Your task to perform on an android device: Go to Reddit.com Image 0: 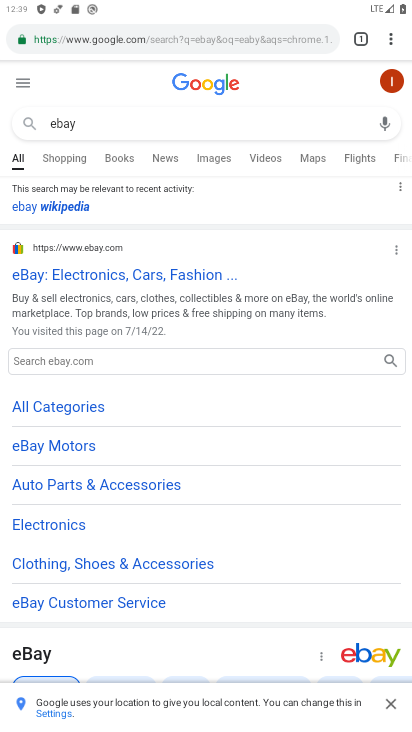
Step 0: press home button
Your task to perform on an android device: Go to Reddit.com Image 1: 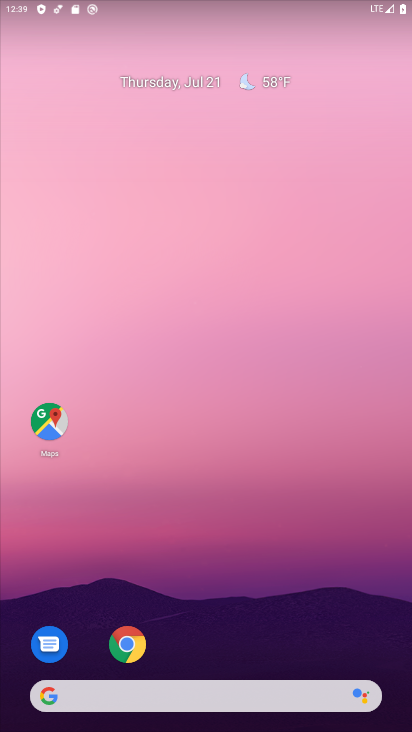
Step 1: drag from (374, 601) to (379, 150)
Your task to perform on an android device: Go to Reddit.com Image 2: 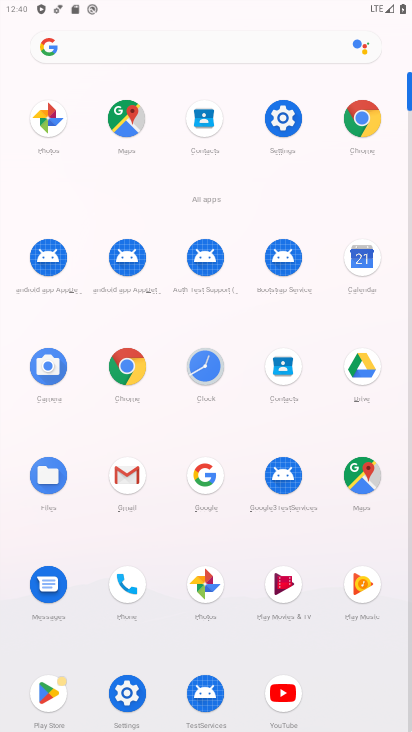
Step 2: click (128, 367)
Your task to perform on an android device: Go to Reddit.com Image 3: 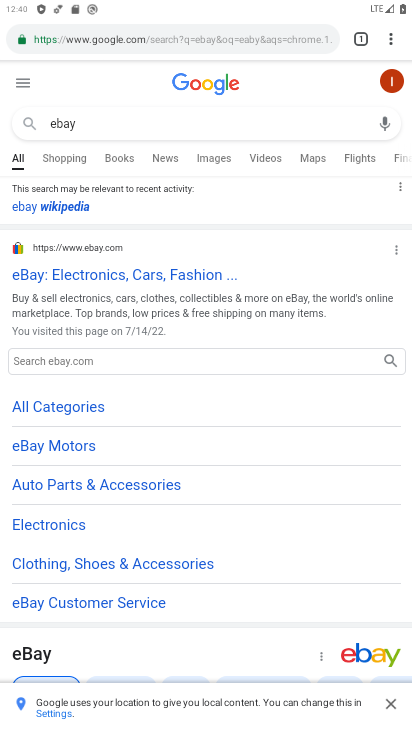
Step 3: click (258, 39)
Your task to perform on an android device: Go to Reddit.com Image 4: 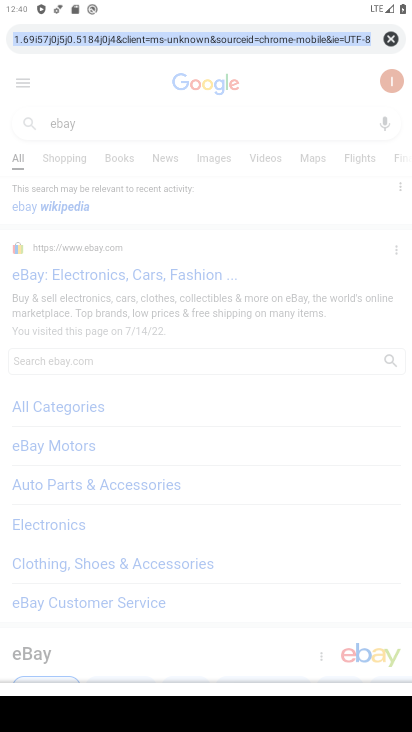
Step 4: type "reddit.com"
Your task to perform on an android device: Go to Reddit.com Image 5: 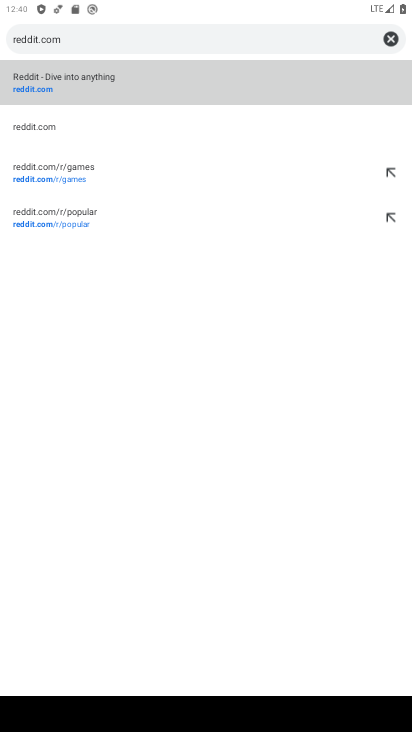
Step 5: click (149, 88)
Your task to perform on an android device: Go to Reddit.com Image 6: 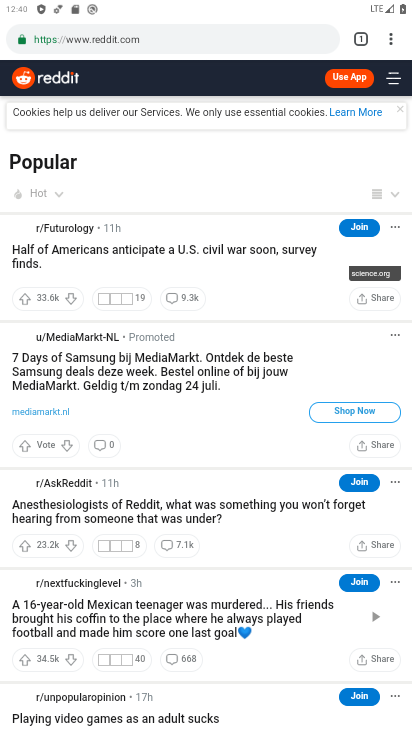
Step 6: task complete